Your task to perform on an android device: see sites visited before in the chrome app Image 0: 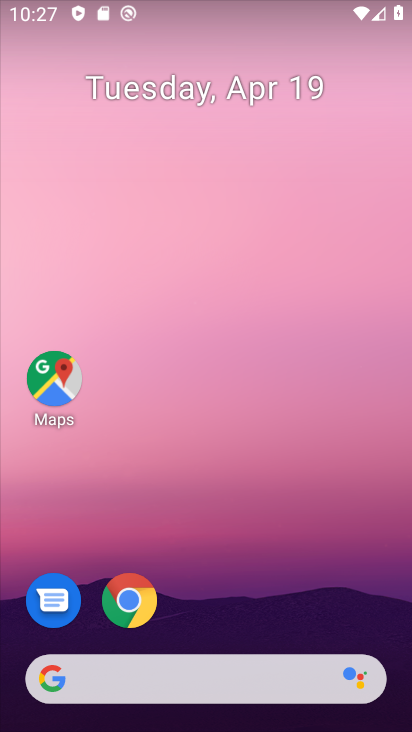
Step 0: click (140, 607)
Your task to perform on an android device: see sites visited before in the chrome app Image 1: 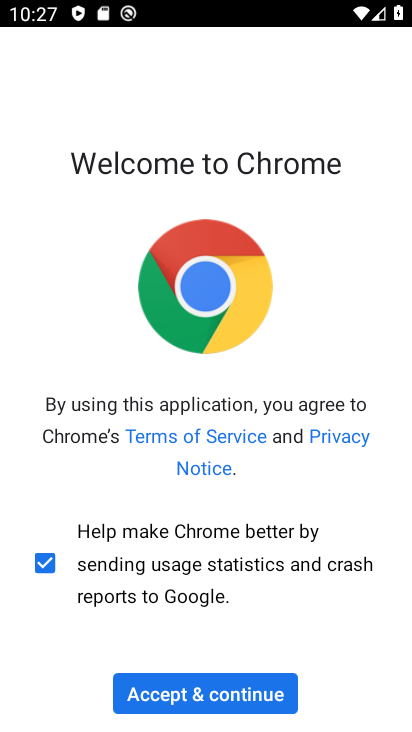
Step 1: click (289, 696)
Your task to perform on an android device: see sites visited before in the chrome app Image 2: 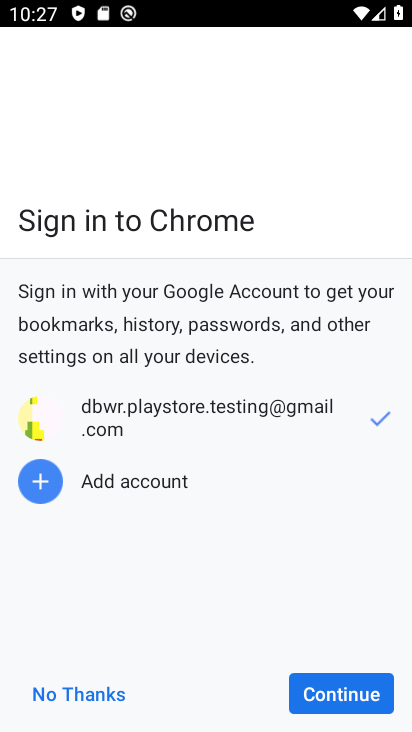
Step 2: click (318, 700)
Your task to perform on an android device: see sites visited before in the chrome app Image 3: 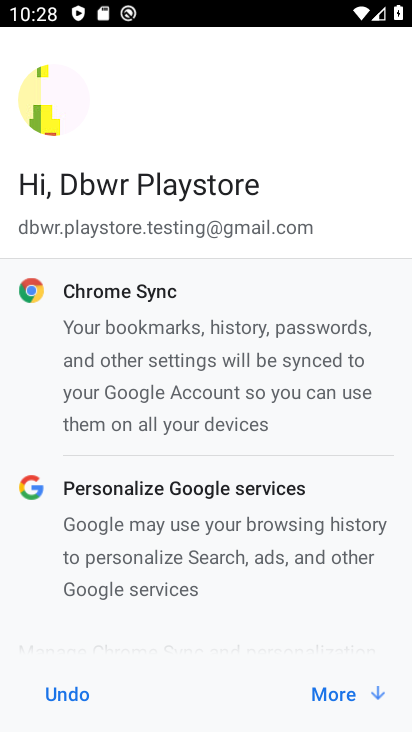
Step 3: click (316, 698)
Your task to perform on an android device: see sites visited before in the chrome app Image 4: 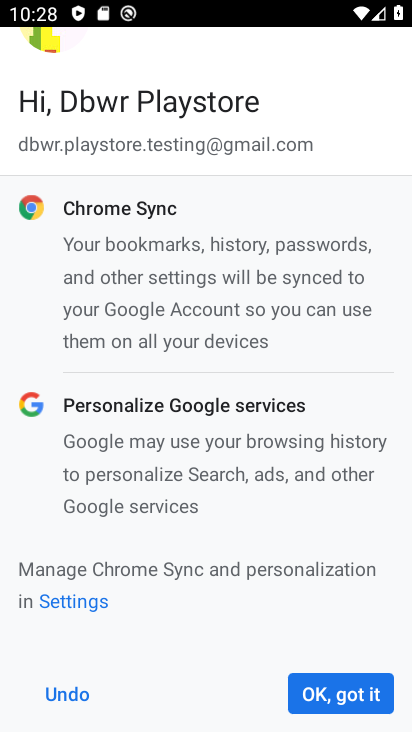
Step 4: click (316, 698)
Your task to perform on an android device: see sites visited before in the chrome app Image 5: 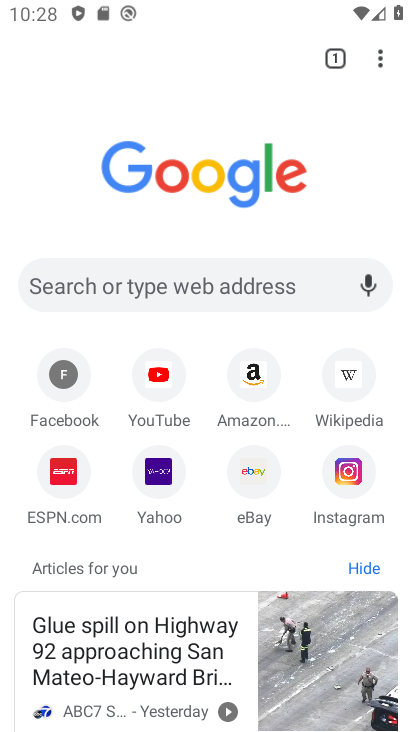
Step 5: click (382, 64)
Your task to perform on an android device: see sites visited before in the chrome app Image 6: 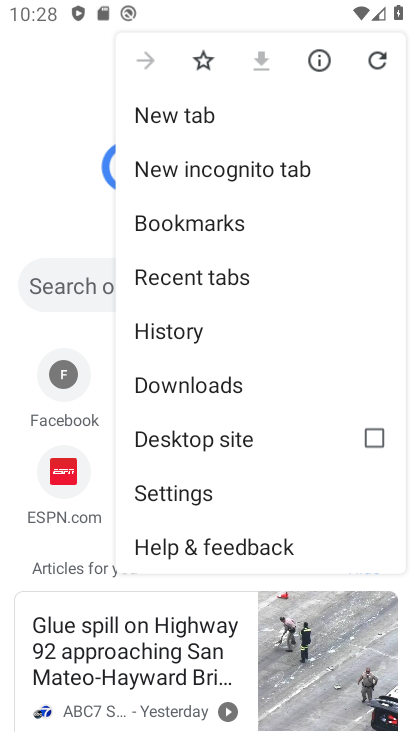
Step 6: drag from (270, 482) to (285, 233)
Your task to perform on an android device: see sites visited before in the chrome app Image 7: 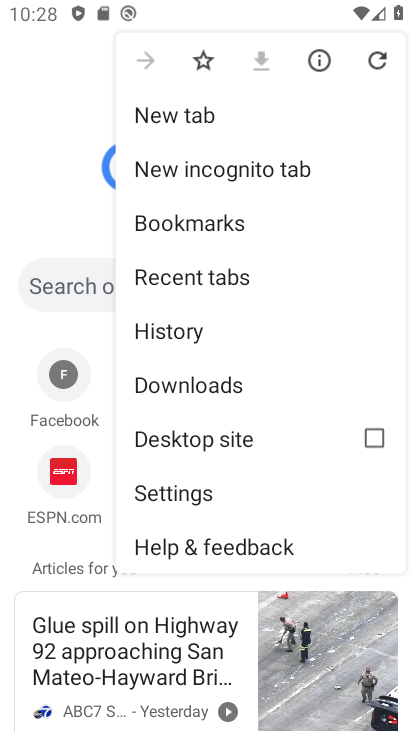
Step 7: click (211, 279)
Your task to perform on an android device: see sites visited before in the chrome app Image 8: 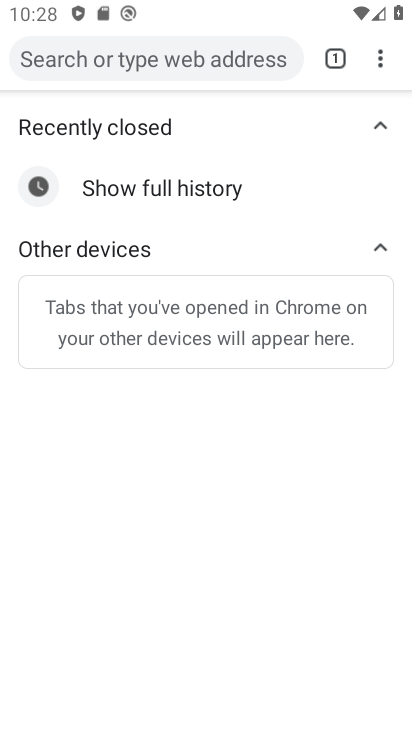
Step 8: task complete